Your task to perform on an android device: open app "Facebook Lite" Image 0: 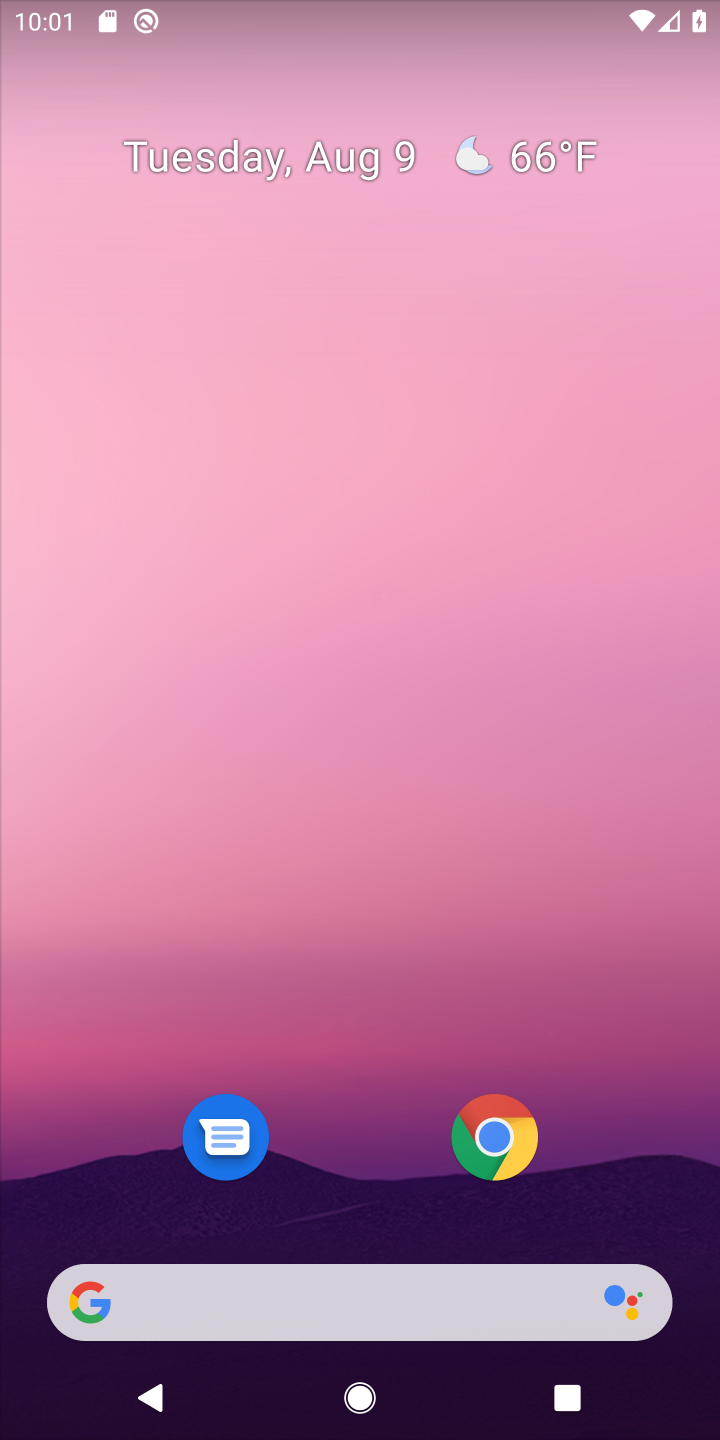
Step 0: click (586, 73)
Your task to perform on an android device: open app "Facebook Lite" Image 1: 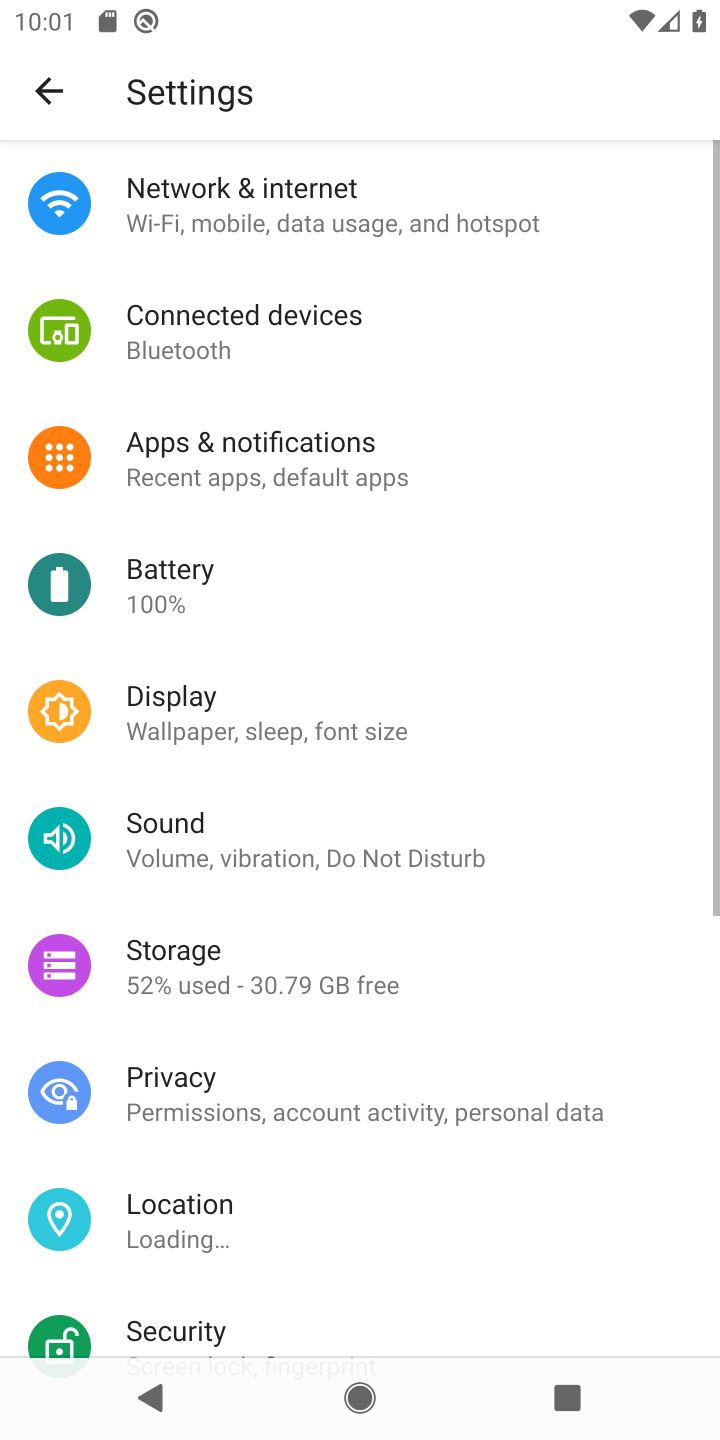
Step 1: click (48, 79)
Your task to perform on an android device: open app "Facebook Lite" Image 2: 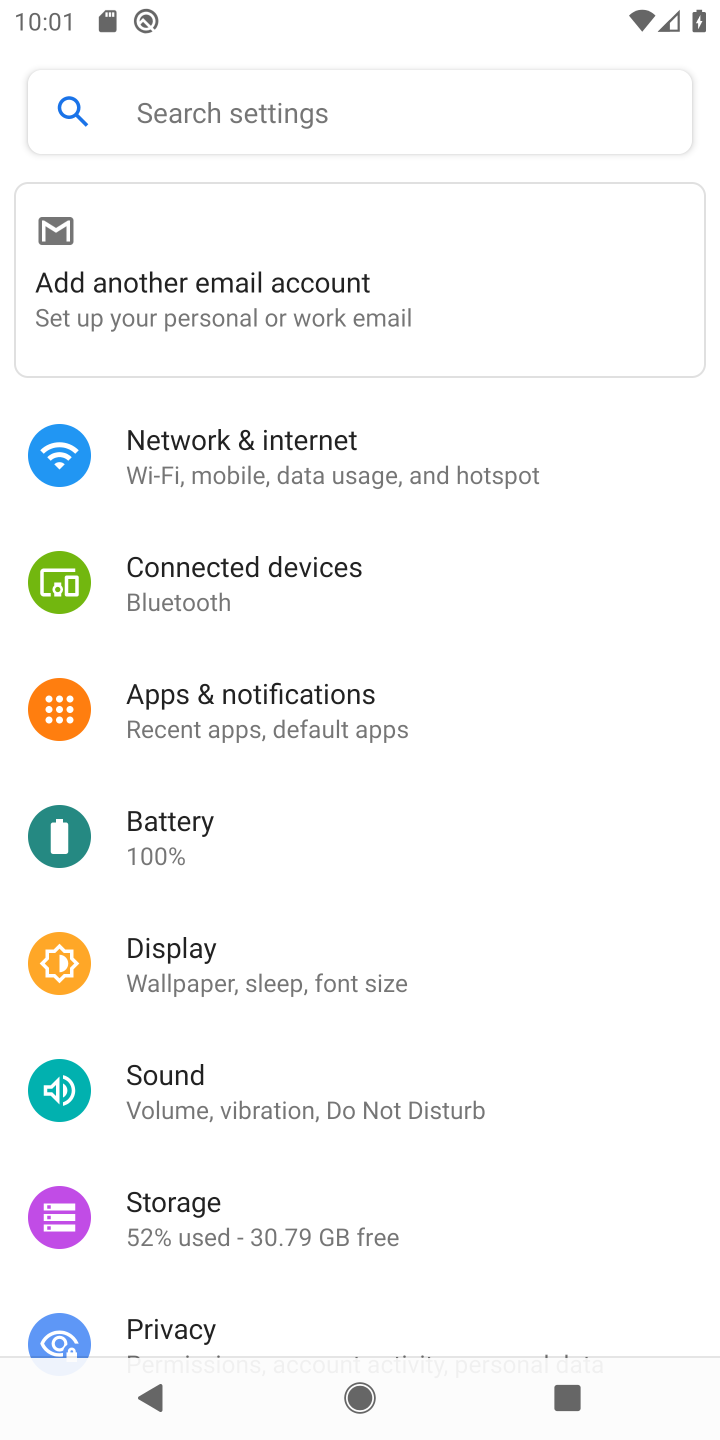
Step 2: press home button
Your task to perform on an android device: open app "Facebook Lite" Image 3: 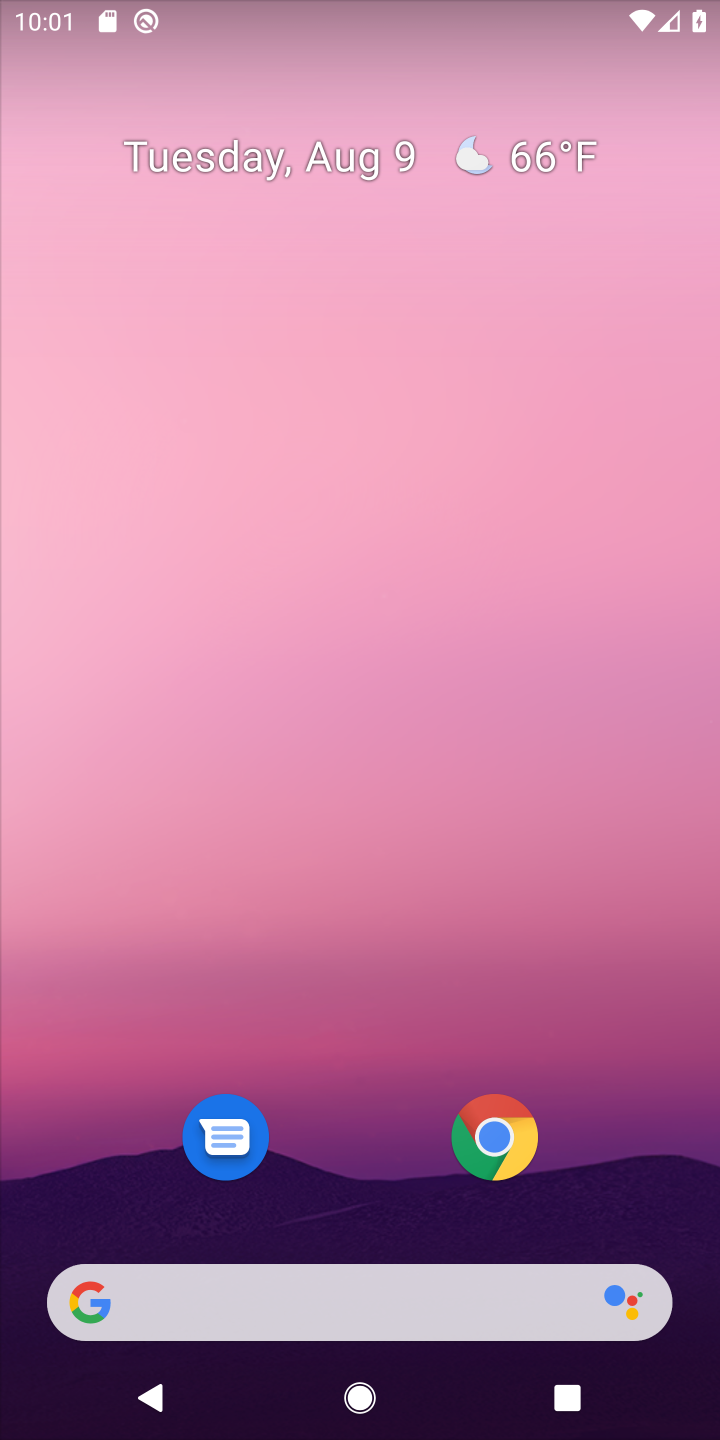
Step 3: drag from (353, 1153) to (380, 326)
Your task to perform on an android device: open app "Facebook Lite" Image 4: 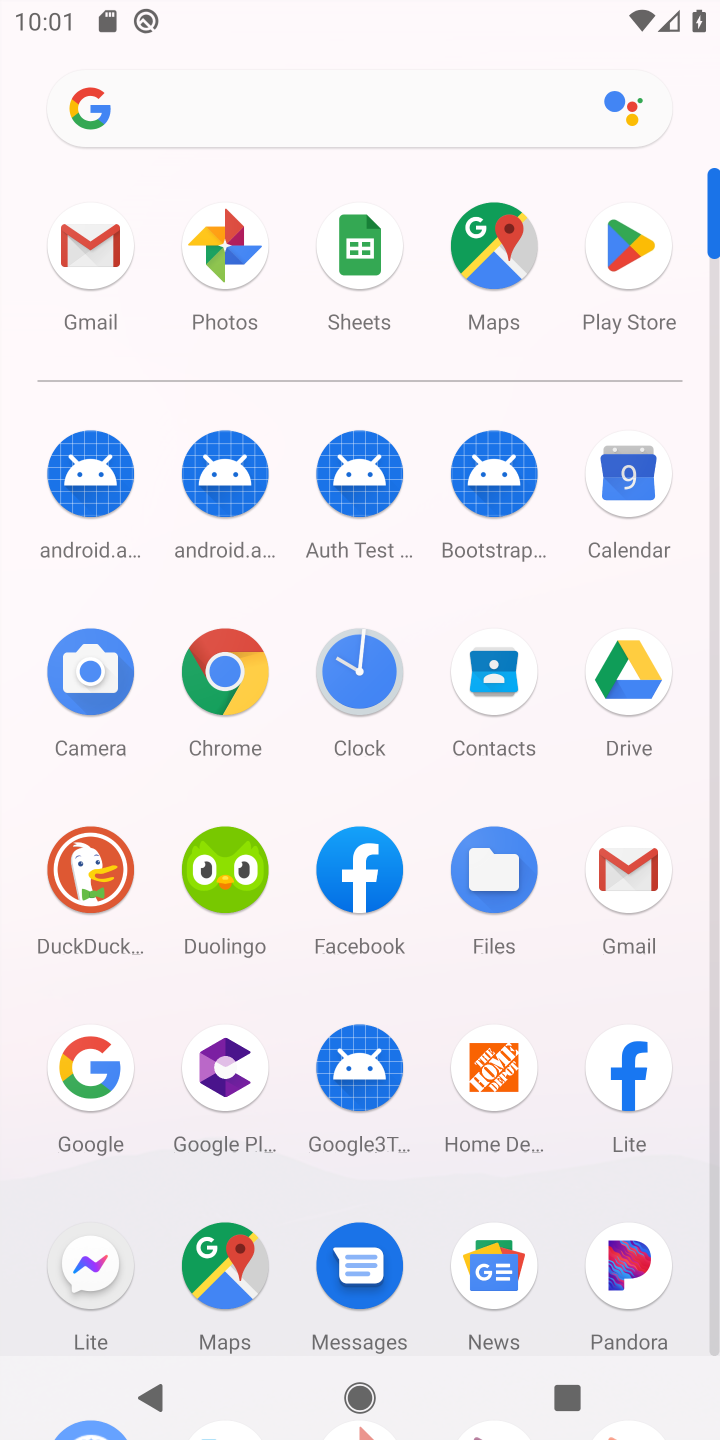
Step 4: click (630, 264)
Your task to perform on an android device: open app "Facebook Lite" Image 5: 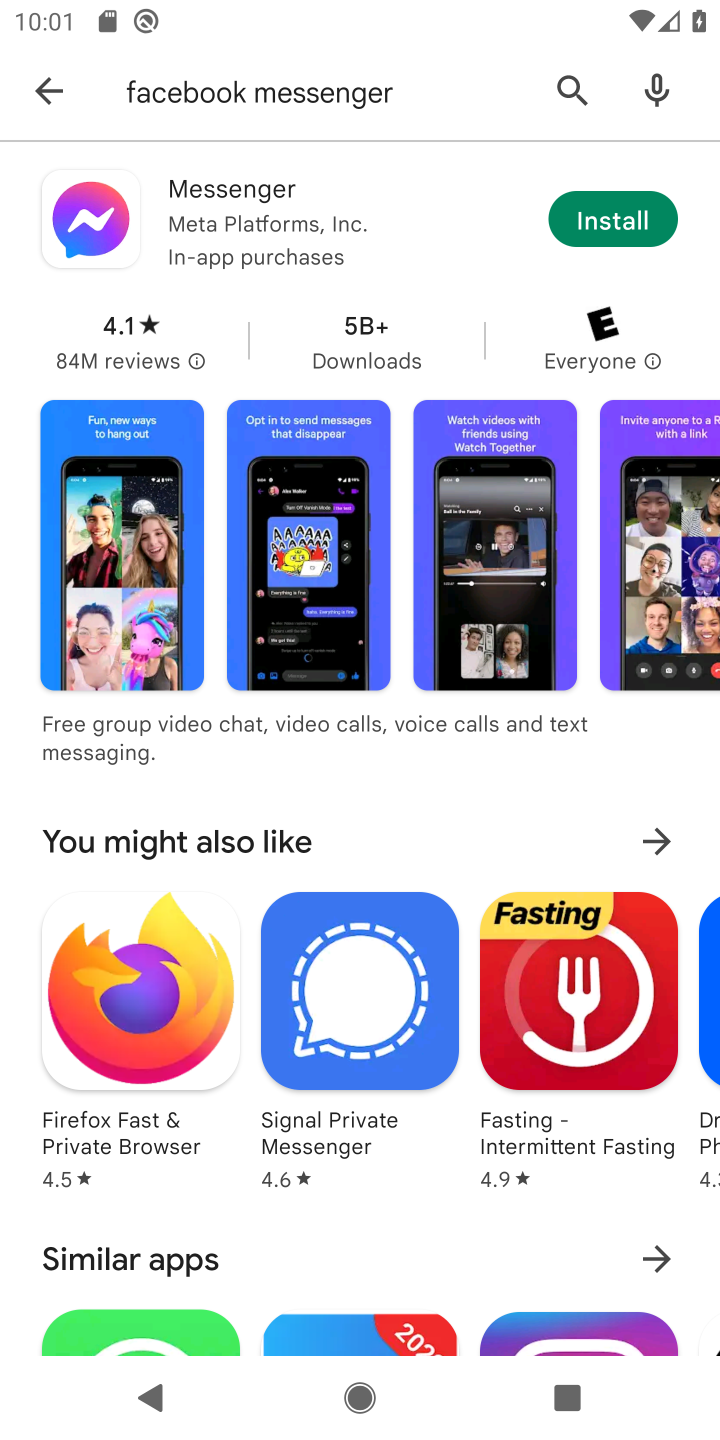
Step 5: click (558, 79)
Your task to perform on an android device: open app "Facebook Lite" Image 6: 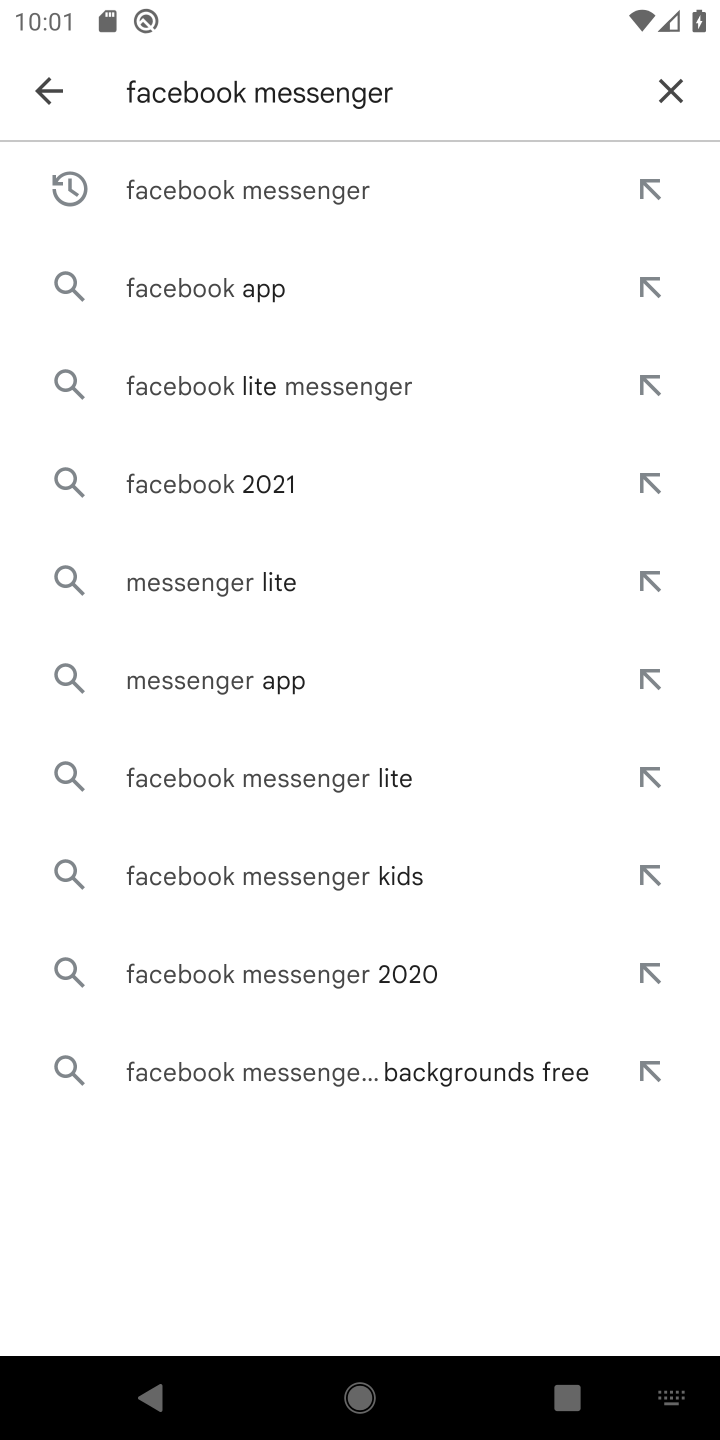
Step 6: click (680, 100)
Your task to perform on an android device: open app "Facebook Lite" Image 7: 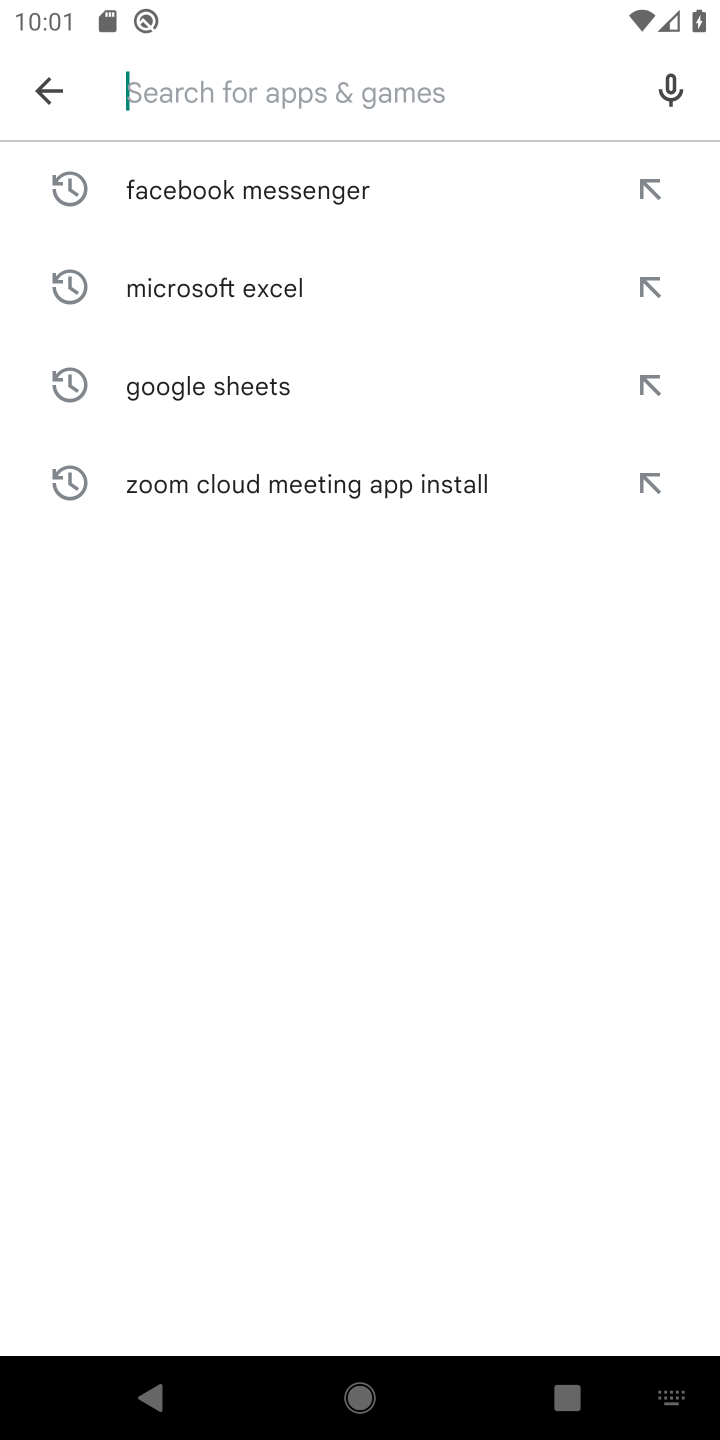
Step 7: type "Facebook Lite"
Your task to perform on an android device: open app "Facebook Lite" Image 8: 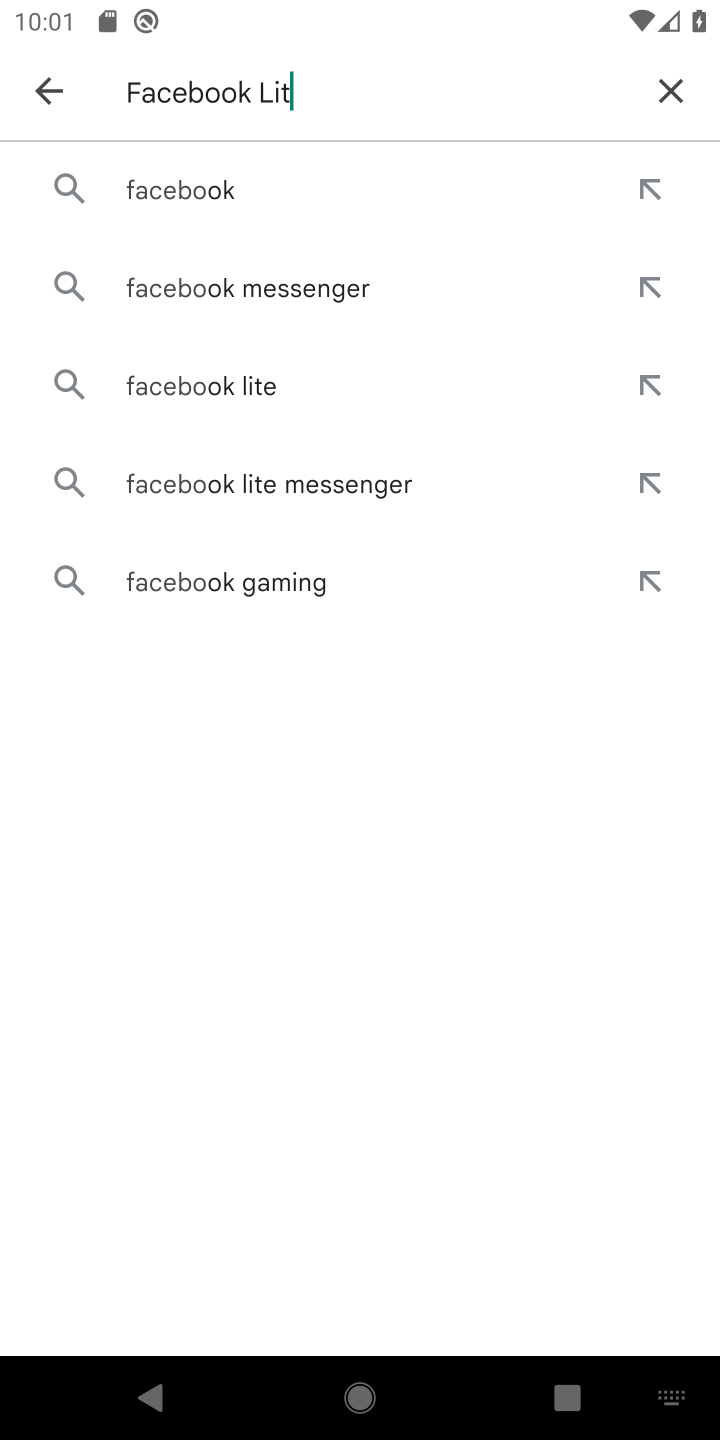
Step 8: type ""
Your task to perform on an android device: open app "Facebook Lite" Image 9: 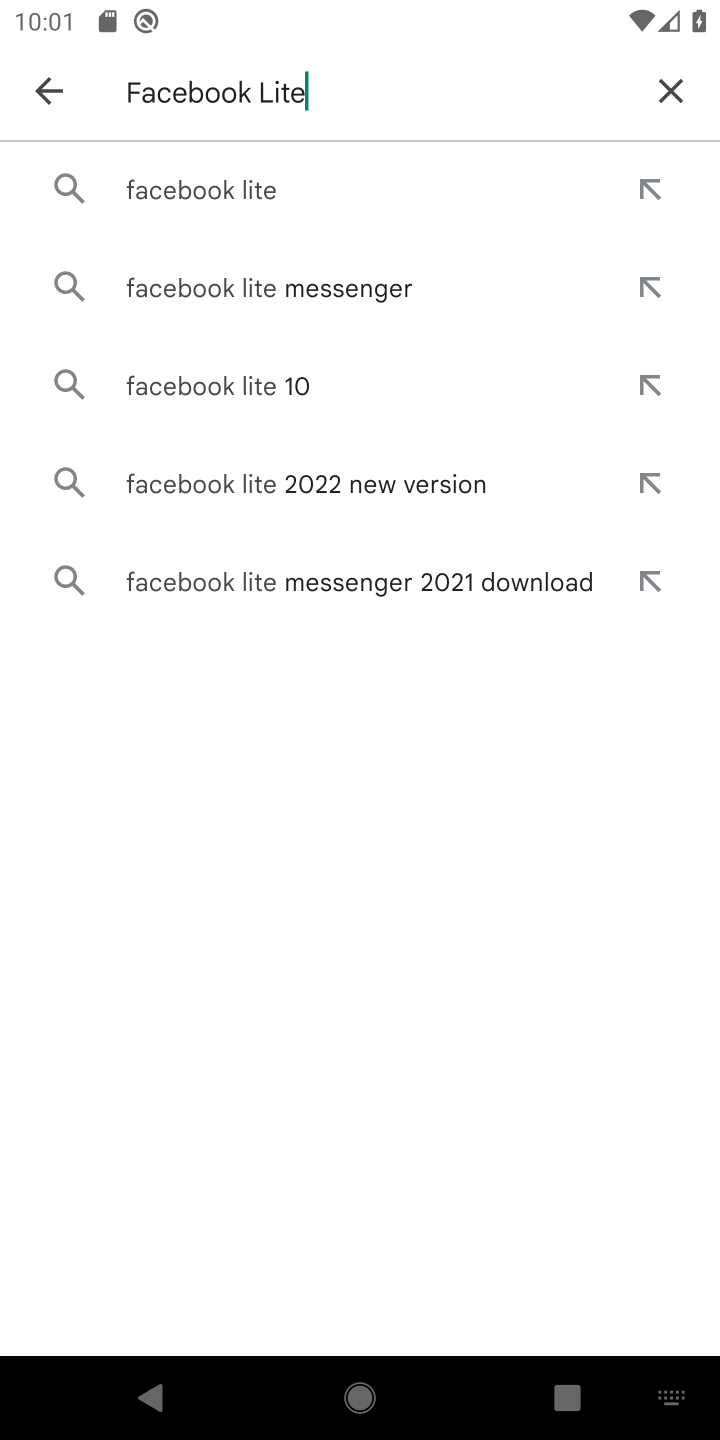
Step 9: click (285, 190)
Your task to perform on an android device: open app "Facebook Lite" Image 10: 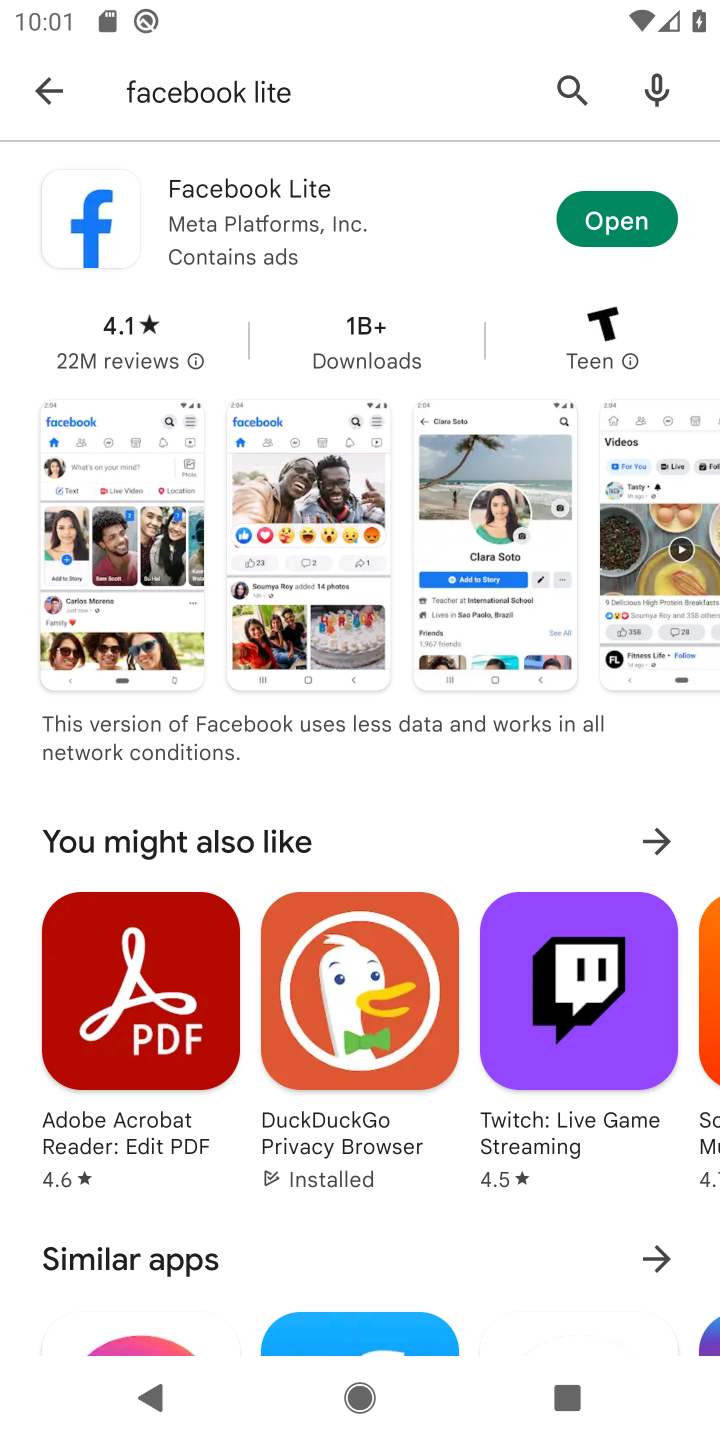
Step 10: click (613, 229)
Your task to perform on an android device: open app "Facebook Lite" Image 11: 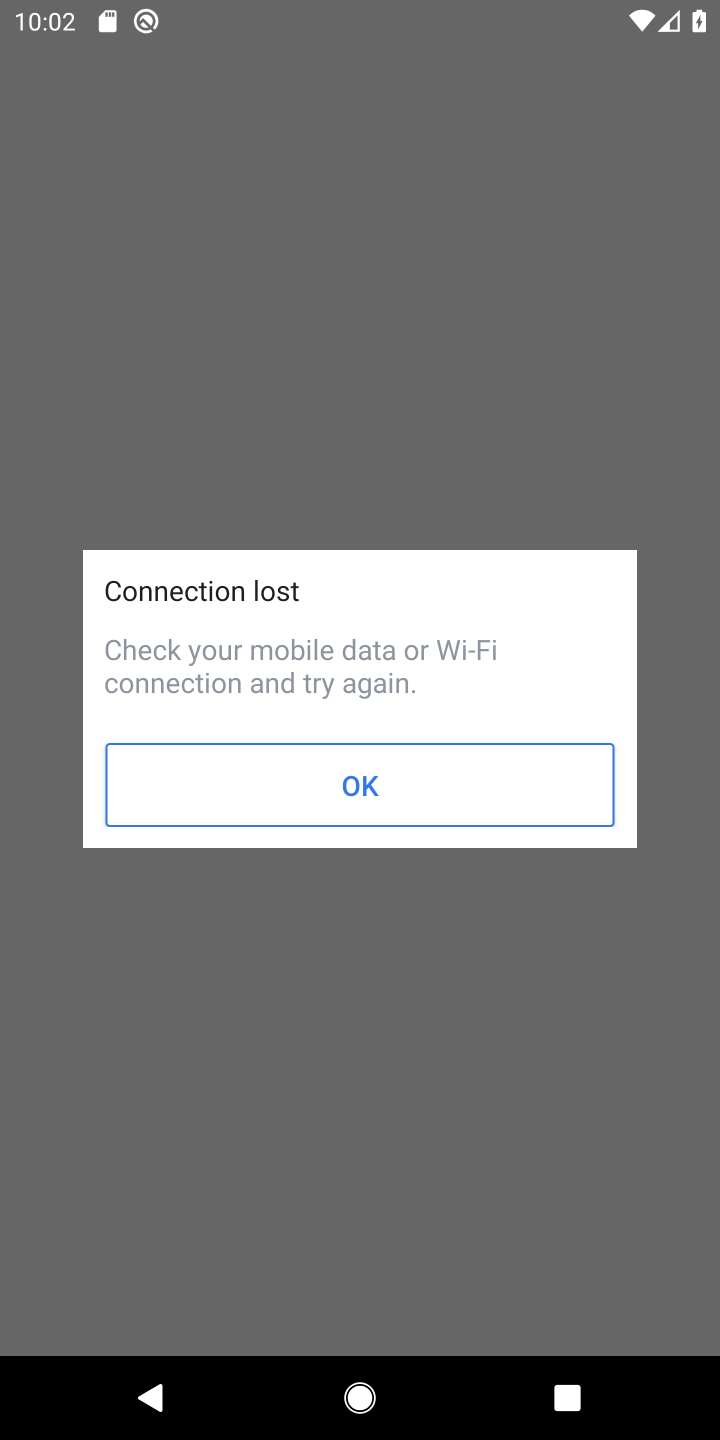
Step 11: task complete